Your task to perform on an android device: turn off wifi Image 0: 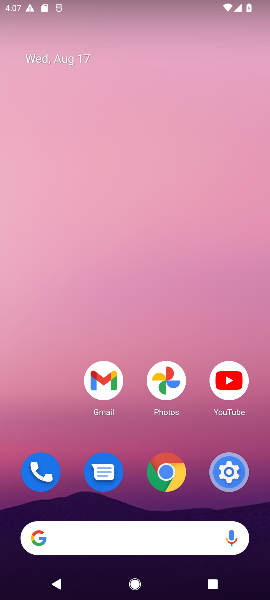
Step 0: drag from (126, 493) to (177, 93)
Your task to perform on an android device: turn off wifi Image 1: 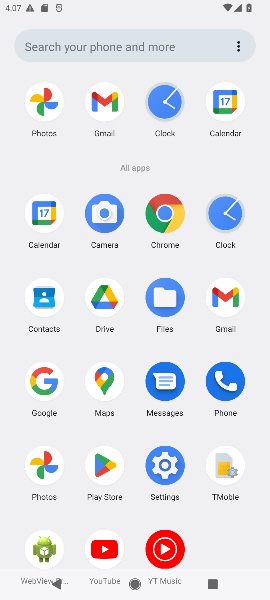
Step 1: click (169, 481)
Your task to perform on an android device: turn off wifi Image 2: 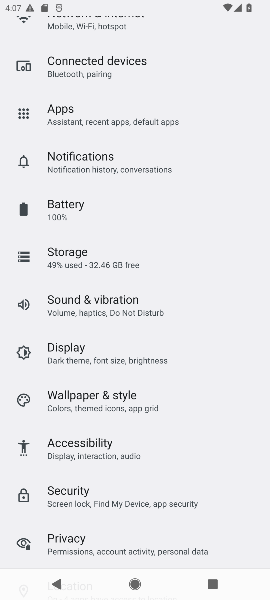
Step 2: drag from (158, 113) to (159, 318)
Your task to perform on an android device: turn off wifi Image 3: 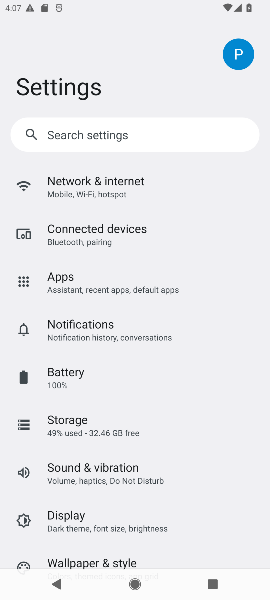
Step 3: click (112, 195)
Your task to perform on an android device: turn off wifi Image 4: 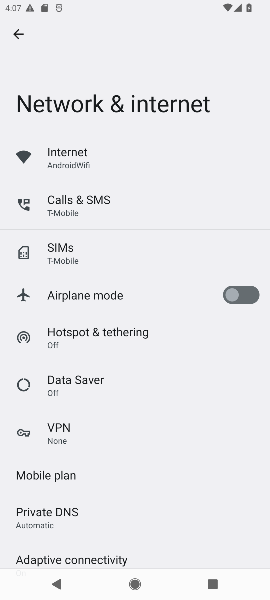
Step 4: click (85, 162)
Your task to perform on an android device: turn off wifi Image 5: 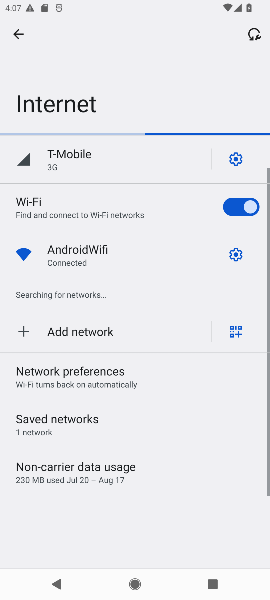
Step 5: click (224, 210)
Your task to perform on an android device: turn off wifi Image 6: 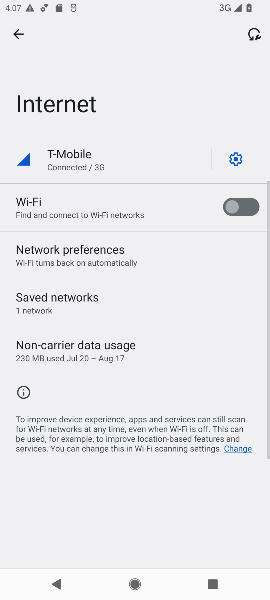
Step 6: task complete